Your task to perform on an android device: change the clock style Image 0: 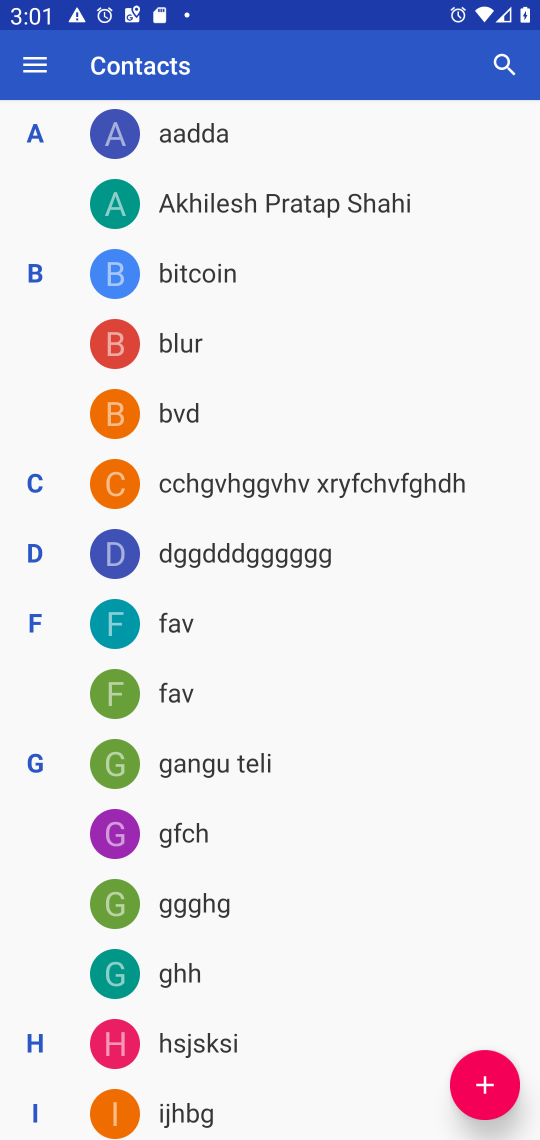
Step 0: press home button
Your task to perform on an android device: change the clock style Image 1: 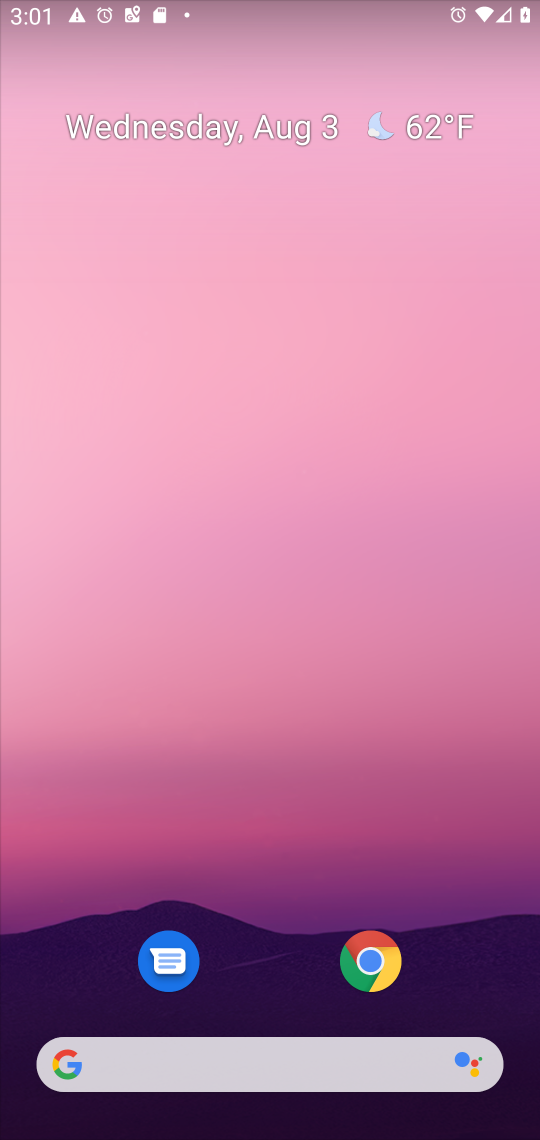
Step 1: drag from (298, 833) to (337, 8)
Your task to perform on an android device: change the clock style Image 2: 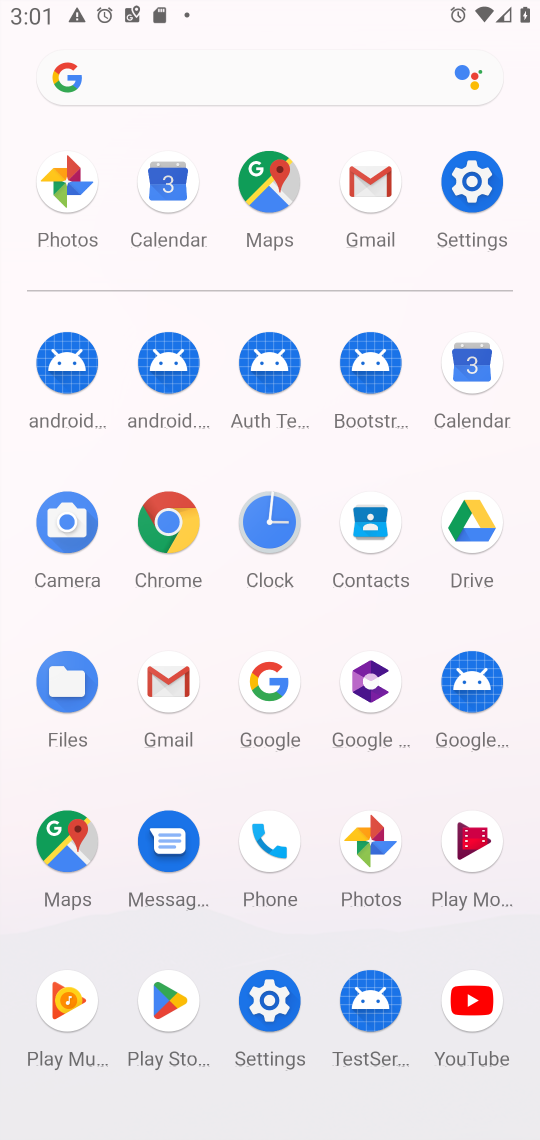
Step 2: click (270, 529)
Your task to perform on an android device: change the clock style Image 3: 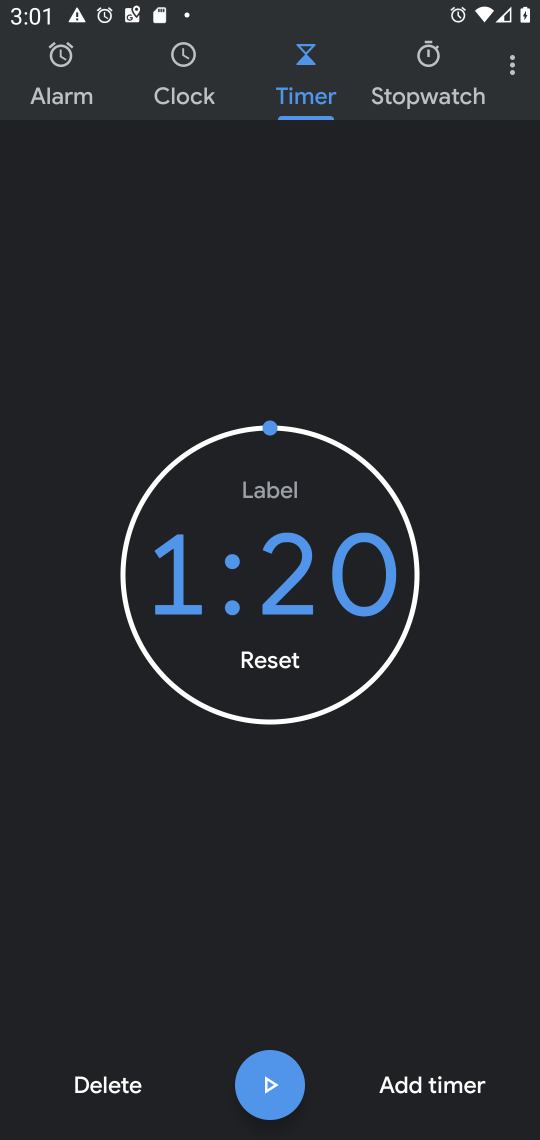
Step 3: click (514, 68)
Your task to perform on an android device: change the clock style Image 4: 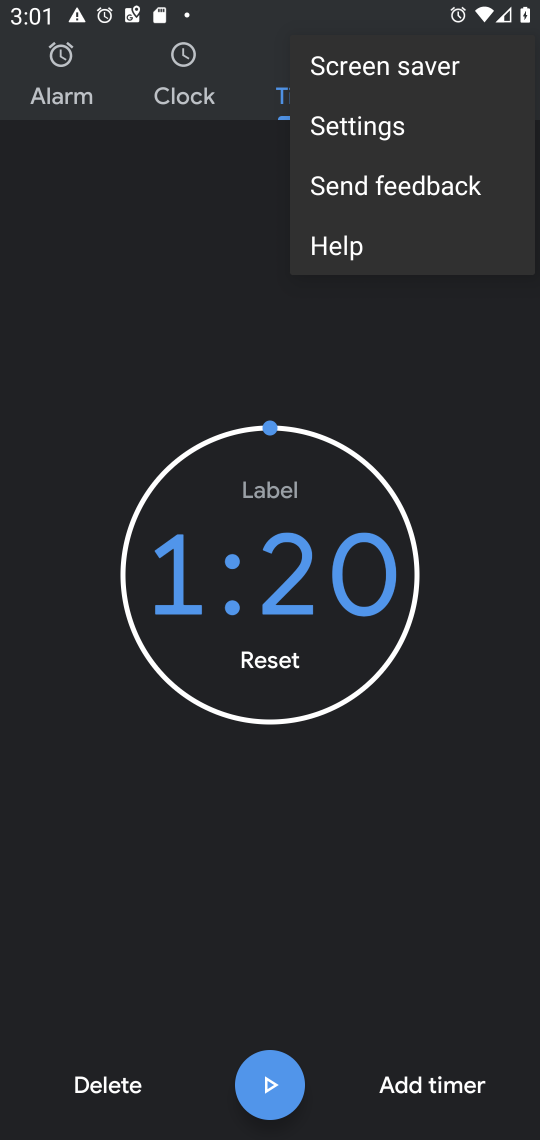
Step 4: click (361, 135)
Your task to perform on an android device: change the clock style Image 5: 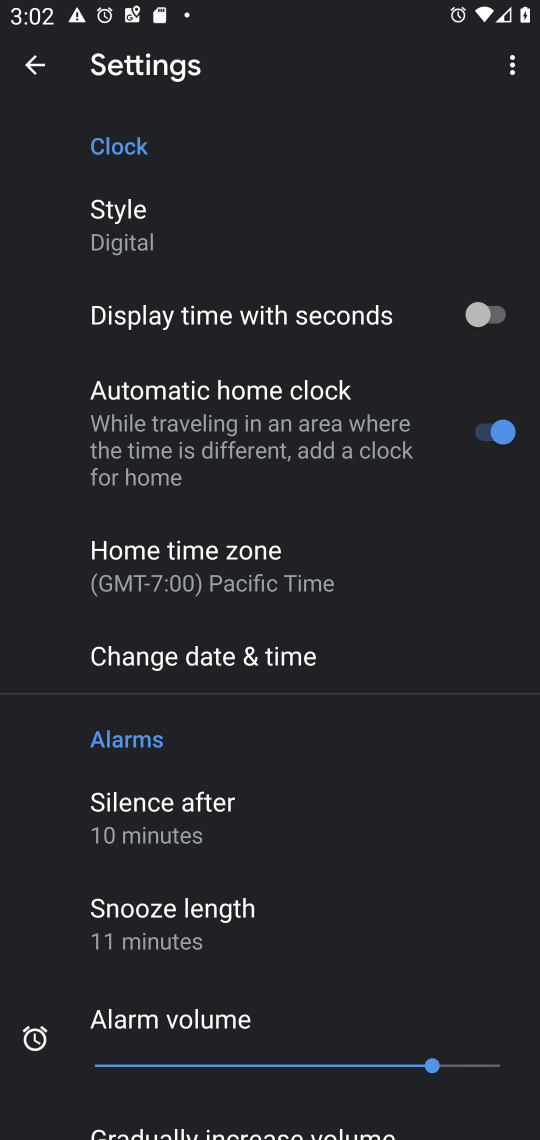
Step 5: click (142, 232)
Your task to perform on an android device: change the clock style Image 6: 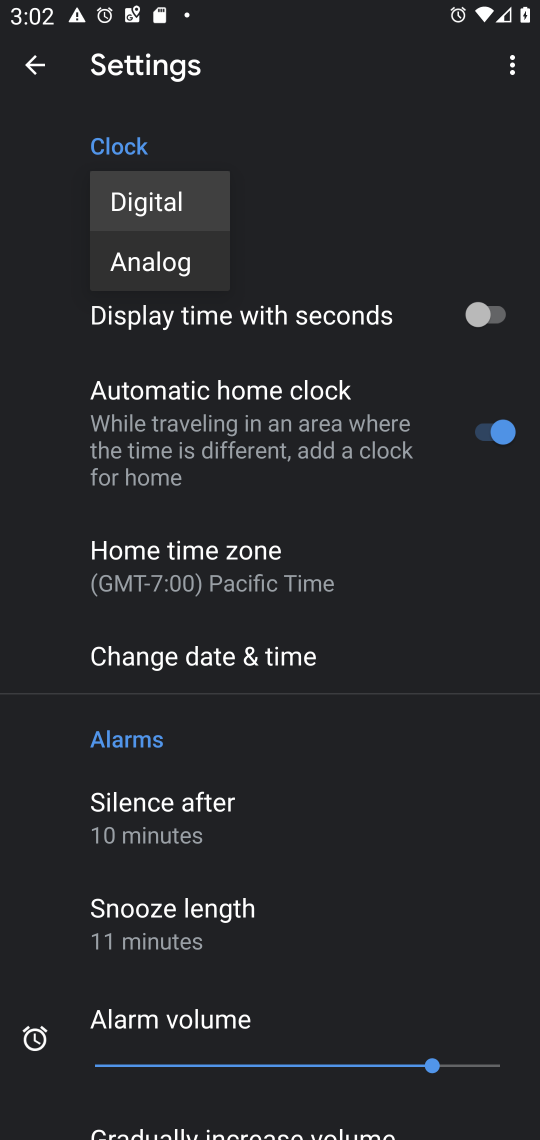
Step 6: click (145, 263)
Your task to perform on an android device: change the clock style Image 7: 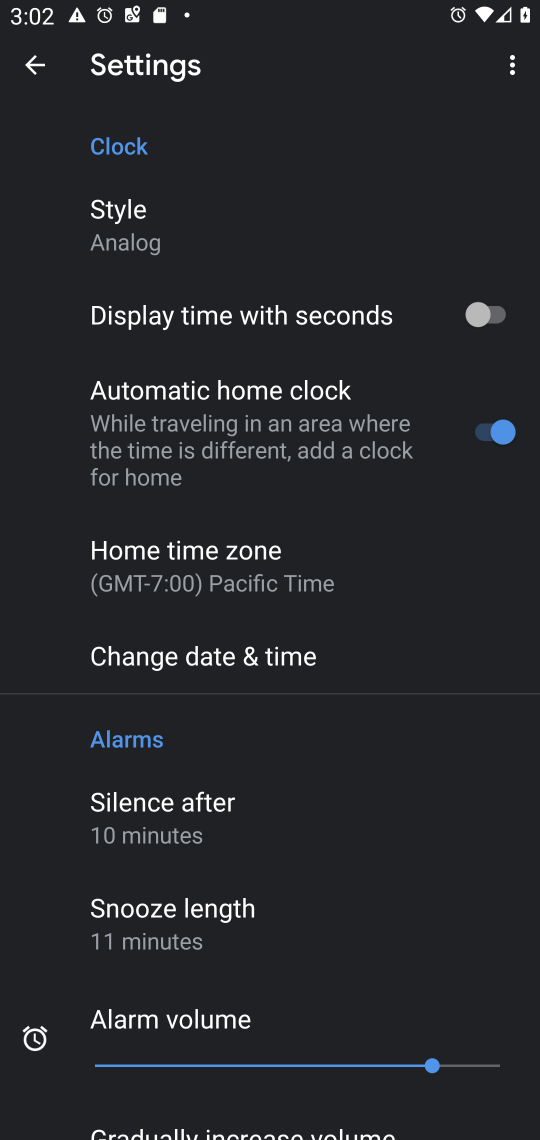
Step 7: task complete